Your task to perform on an android device: Open CNN.com Image 0: 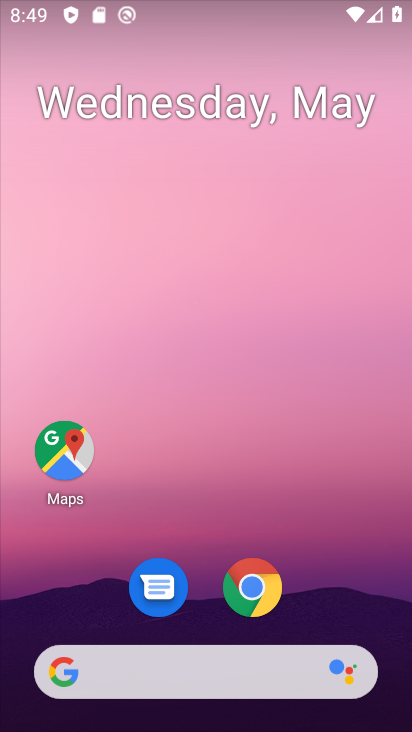
Step 0: click (261, 603)
Your task to perform on an android device: Open CNN.com Image 1: 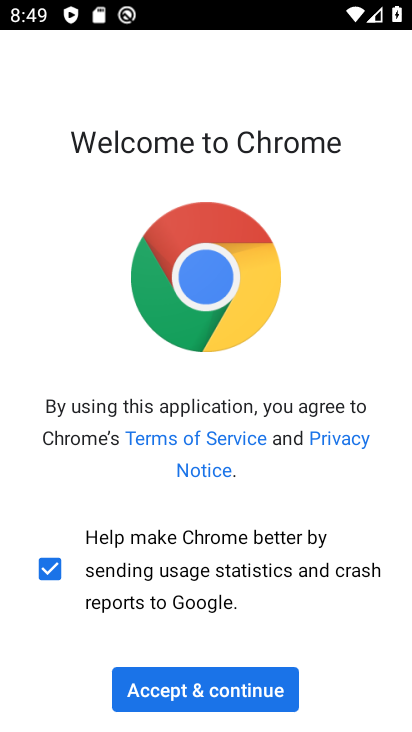
Step 1: click (252, 700)
Your task to perform on an android device: Open CNN.com Image 2: 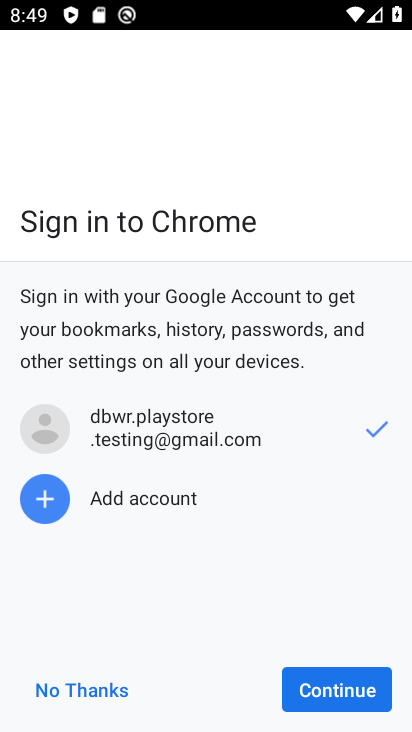
Step 2: click (318, 687)
Your task to perform on an android device: Open CNN.com Image 3: 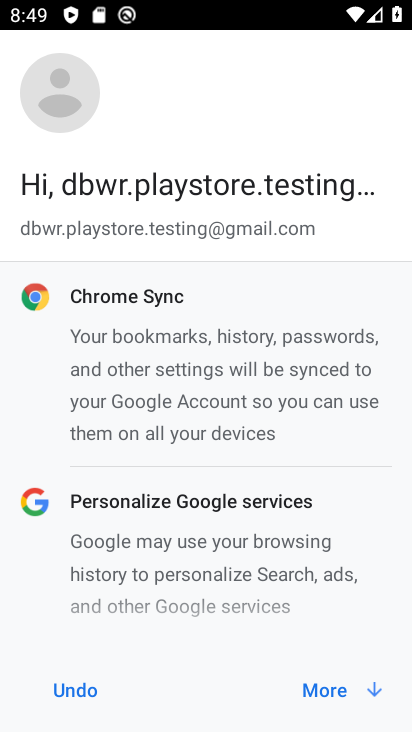
Step 3: click (318, 687)
Your task to perform on an android device: Open CNN.com Image 4: 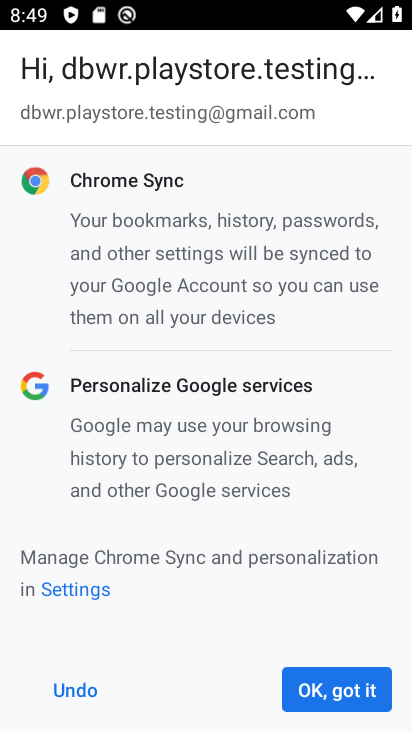
Step 4: click (318, 687)
Your task to perform on an android device: Open CNN.com Image 5: 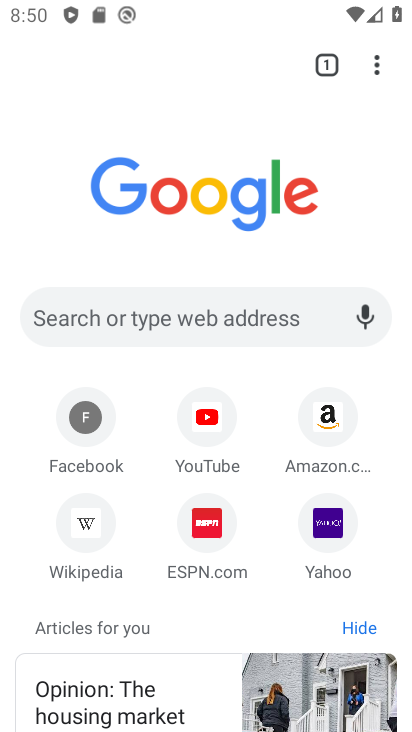
Step 5: click (244, 327)
Your task to perform on an android device: Open CNN.com Image 6: 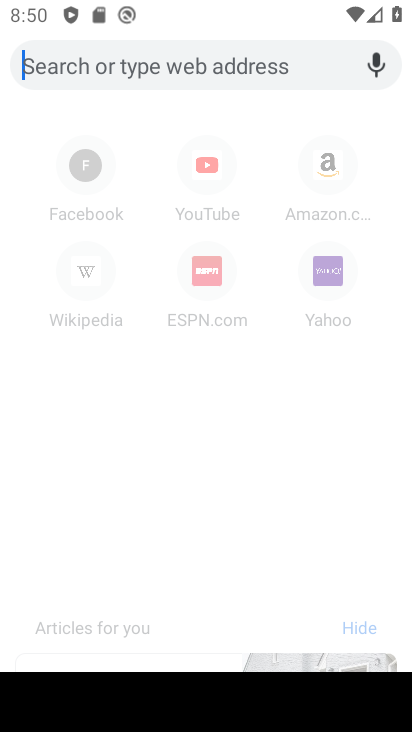
Step 6: type "CNN.com"
Your task to perform on an android device: Open CNN.com Image 7: 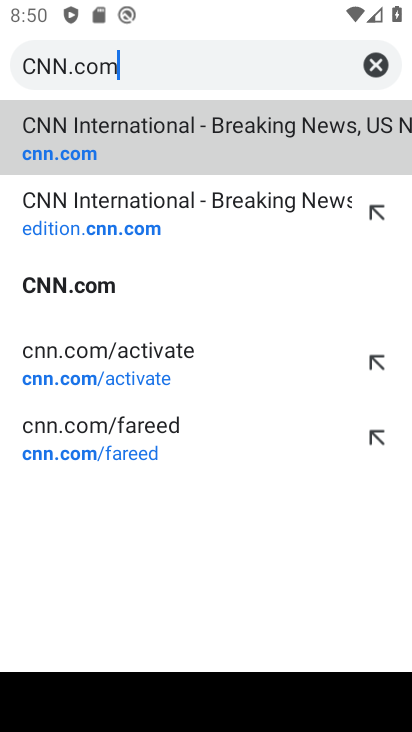
Step 7: click (142, 294)
Your task to perform on an android device: Open CNN.com Image 8: 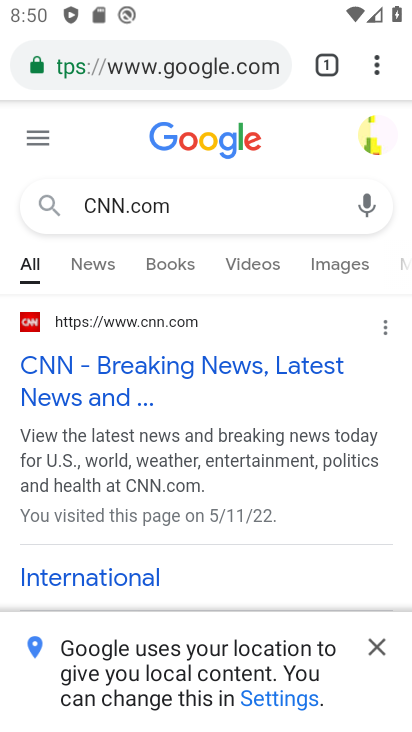
Step 8: click (90, 372)
Your task to perform on an android device: Open CNN.com Image 9: 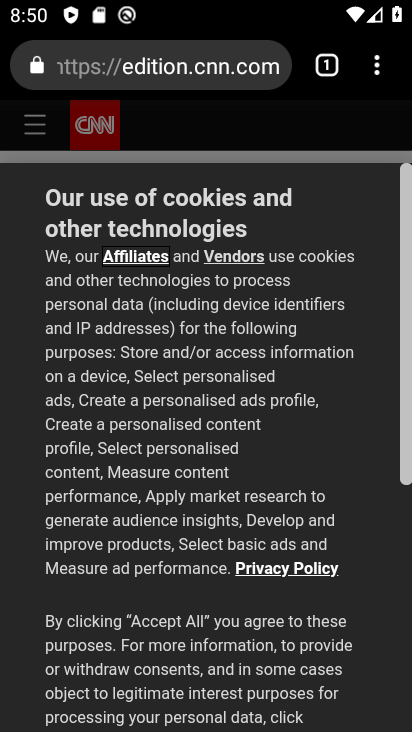
Step 9: drag from (279, 561) to (358, 235)
Your task to perform on an android device: Open CNN.com Image 10: 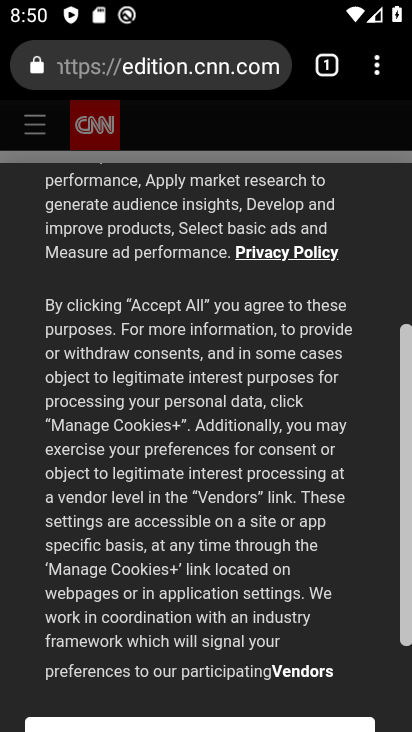
Step 10: drag from (305, 589) to (371, 327)
Your task to perform on an android device: Open CNN.com Image 11: 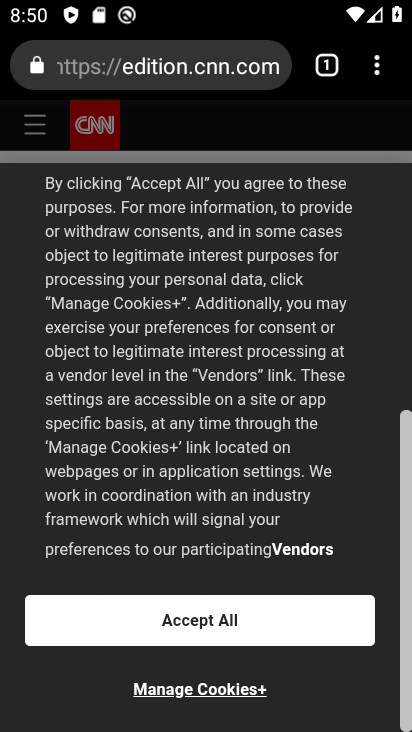
Step 11: click (291, 627)
Your task to perform on an android device: Open CNN.com Image 12: 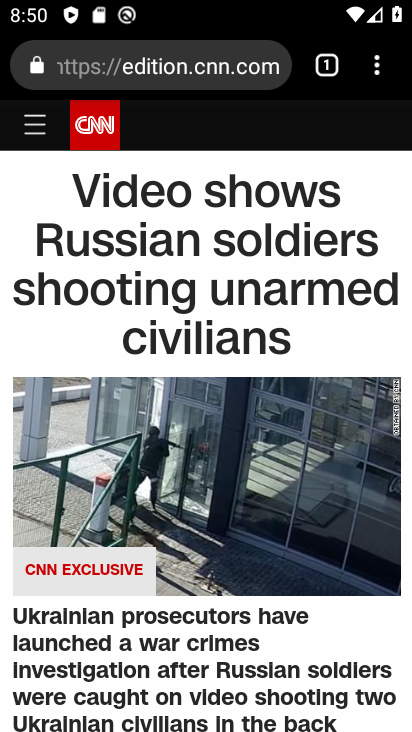
Step 12: task complete